Your task to perform on an android device: turn off sleep mode Image 0: 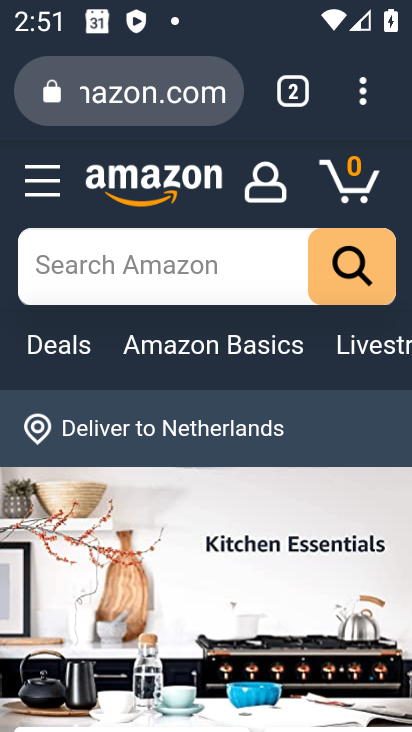
Step 0: press home button
Your task to perform on an android device: turn off sleep mode Image 1: 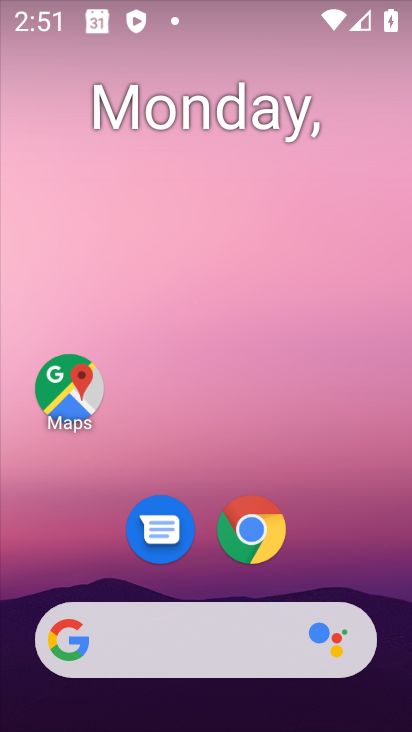
Step 1: drag from (376, 533) to (287, 295)
Your task to perform on an android device: turn off sleep mode Image 2: 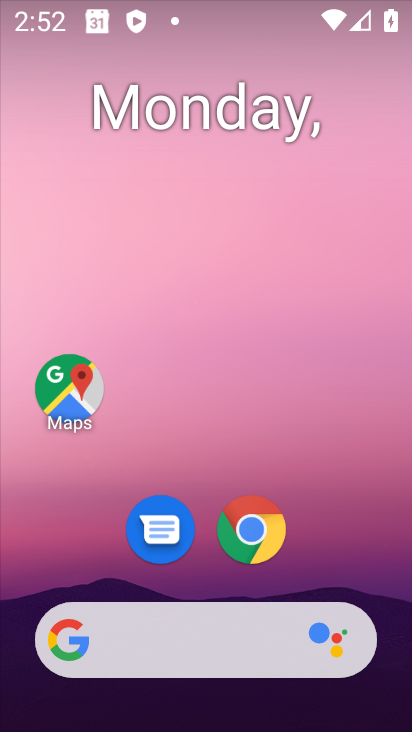
Step 2: drag from (359, 534) to (244, 150)
Your task to perform on an android device: turn off sleep mode Image 3: 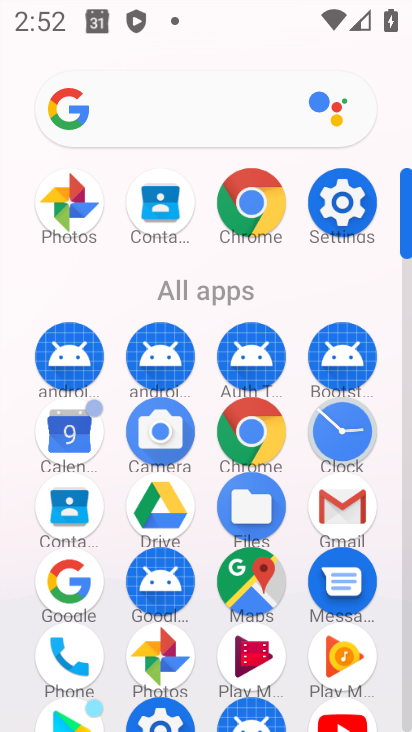
Step 3: click (330, 183)
Your task to perform on an android device: turn off sleep mode Image 4: 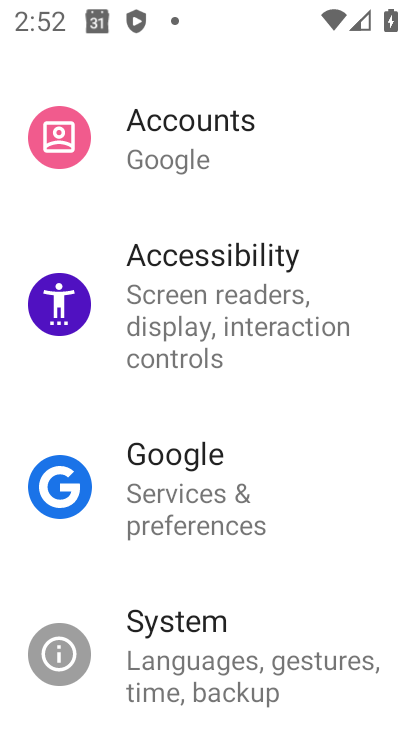
Step 4: drag from (295, 126) to (323, 724)
Your task to perform on an android device: turn off sleep mode Image 5: 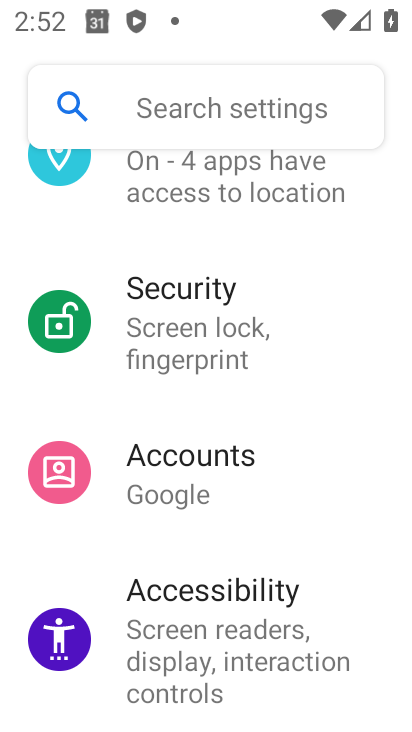
Step 5: drag from (278, 225) to (327, 663)
Your task to perform on an android device: turn off sleep mode Image 6: 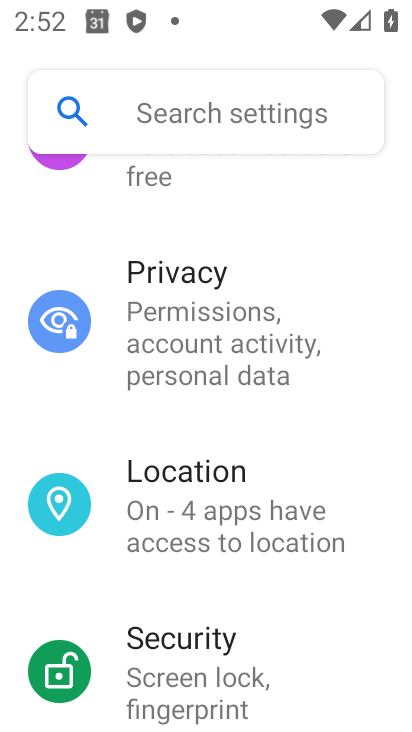
Step 6: drag from (269, 251) to (339, 718)
Your task to perform on an android device: turn off sleep mode Image 7: 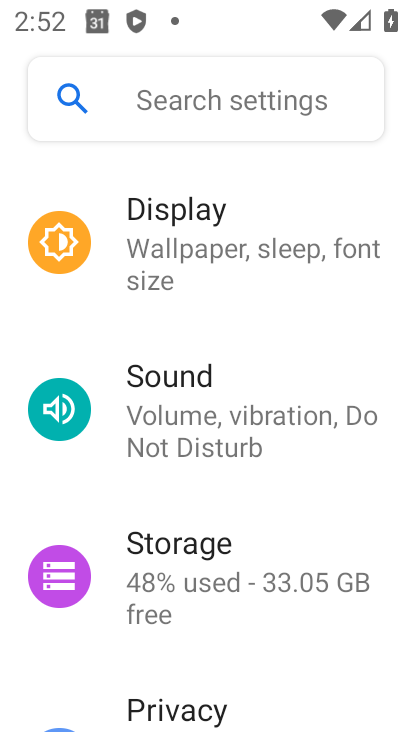
Step 7: click (250, 281)
Your task to perform on an android device: turn off sleep mode Image 8: 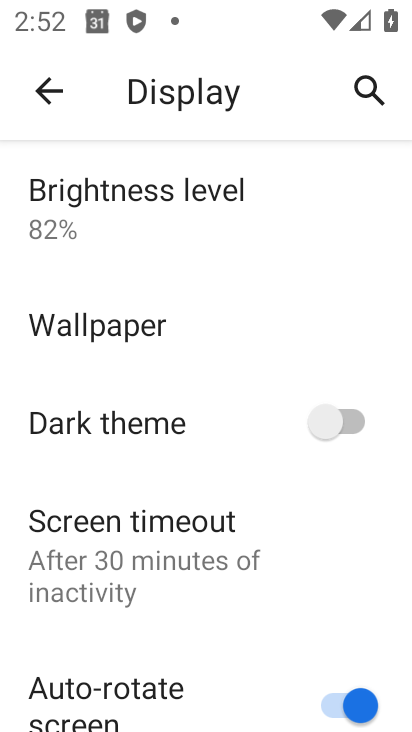
Step 8: drag from (238, 580) to (259, 346)
Your task to perform on an android device: turn off sleep mode Image 9: 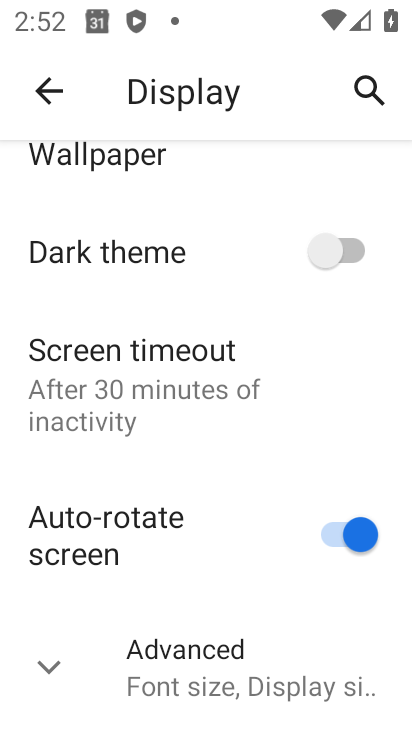
Step 9: click (255, 648)
Your task to perform on an android device: turn off sleep mode Image 10: 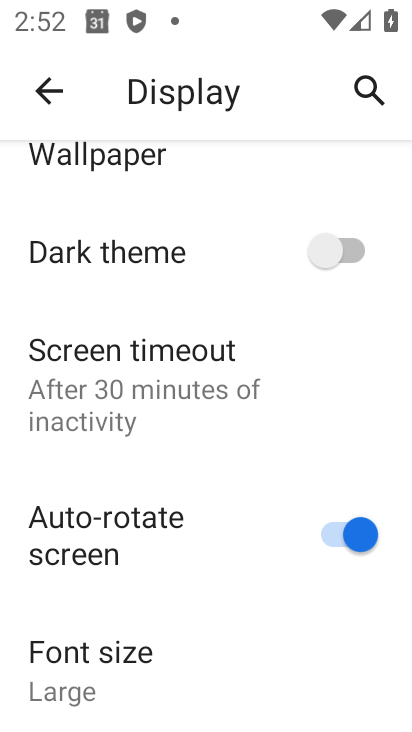
Step 10: task complete